Your task to perform on an android device: toggle wifi Image 0: 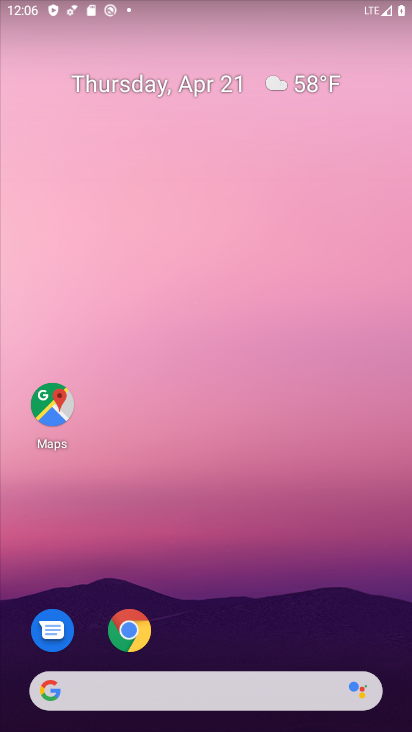
Step 0: press home button
Your task to perform on an android device: toggle wifi Image 1: 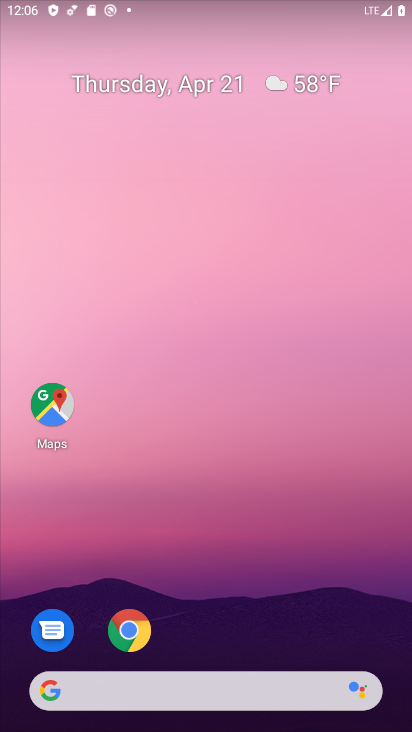
Step 1: drag from (180, 683) to (302, 91)
Your task to perform on an android device: toggle wifi Image 2: 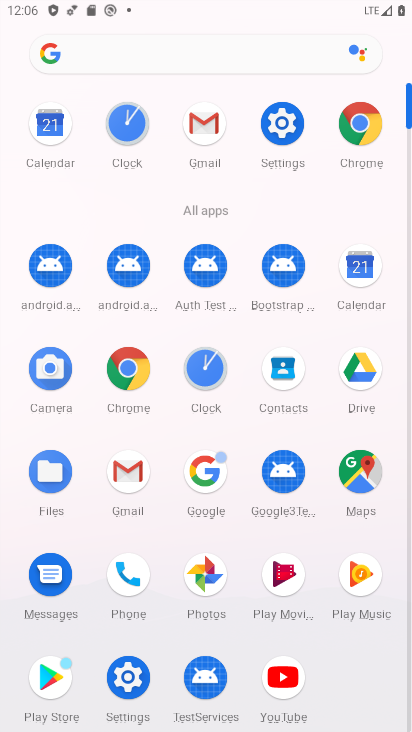
Step 2: click (285, 133)
Your task to perform on an android device: toggle wifi Image 3: 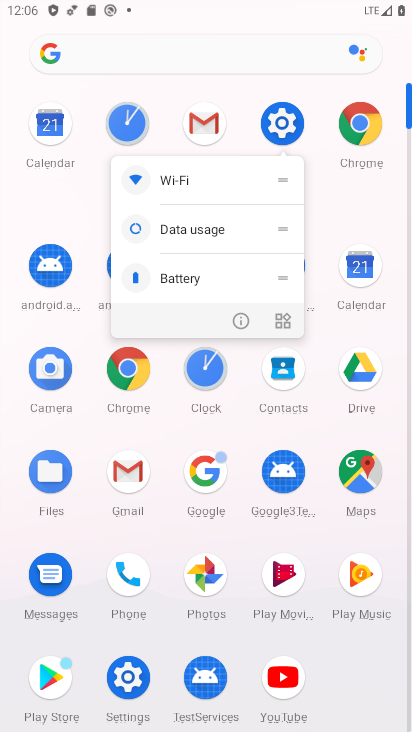
Step 3: click (285, 127)
Your task to perform on an android device: toggle wifi Image 4: 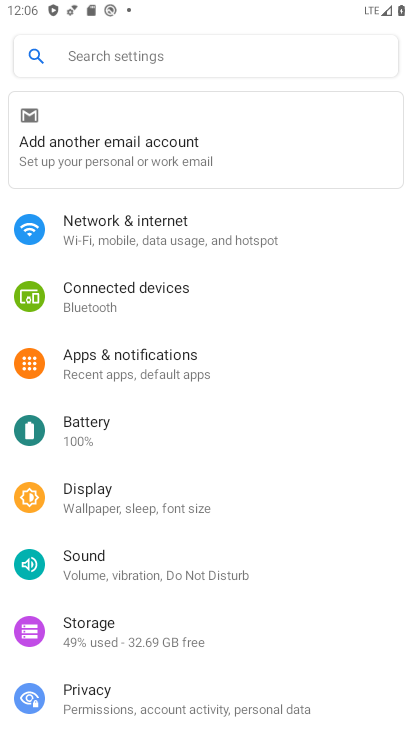
Step 4: click (147, 227)
Your task to perform on an android device: toggle wifi Image 5: 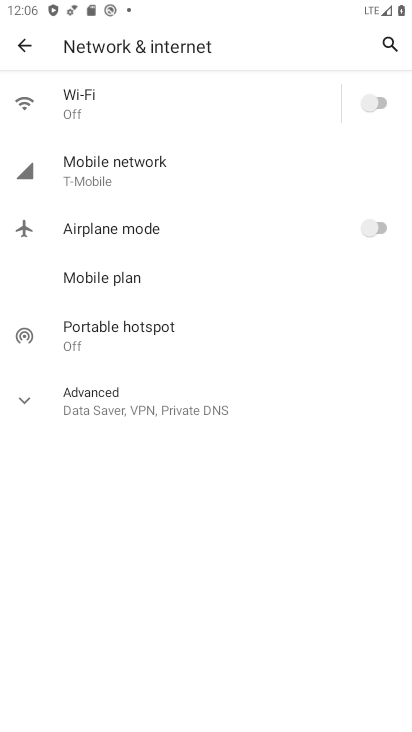
Step 5: click (381, 102)
Your task to perform on an android device: toggle wifi Image 6: 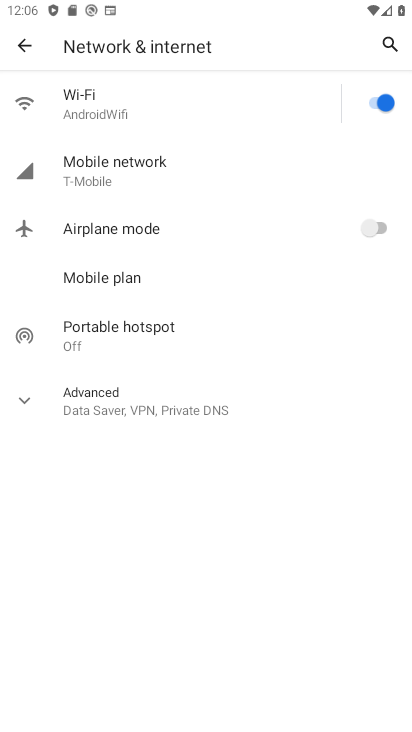
Step 6: task complete